Your task to perform on an android device: turn notification dots off Image 0: 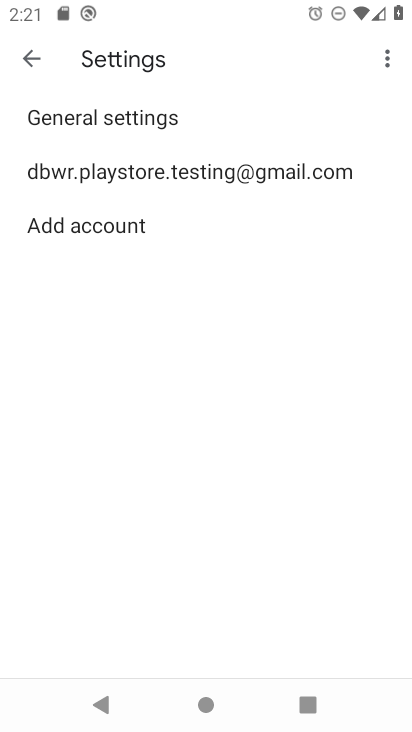
Step 0: press home button
Your task to perform on an android device: turn notification dots off Image 1: 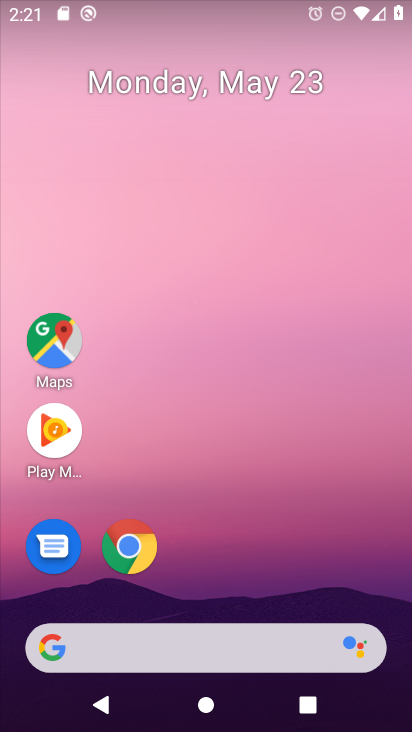
Step 1: drag from (234, 554) to (253, 0)
Your task to perform on an android device: turn notification dots off Image 2: 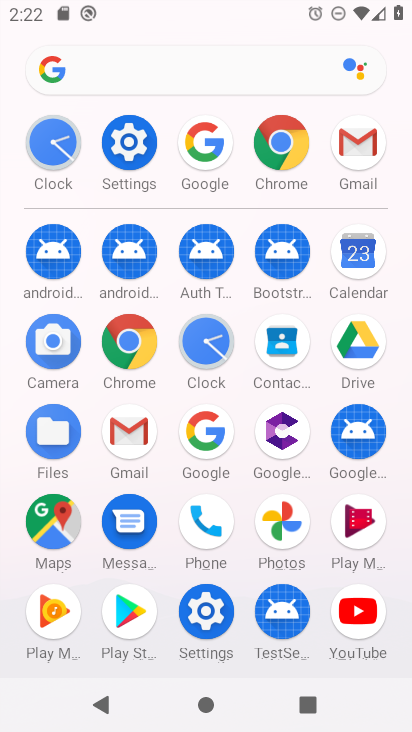
Step 2: click (129, 142)
Your task to perform on an android device: turn notification dots off Image 3: 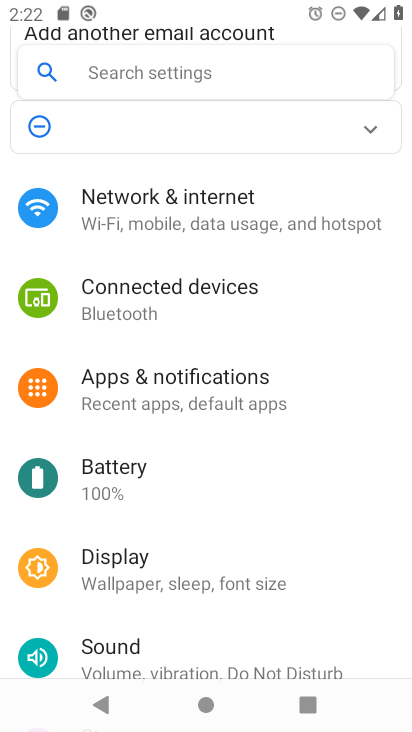
Step 3: click (222, 382)
Your task to perform on an android device: turn notification dots off Image 4: 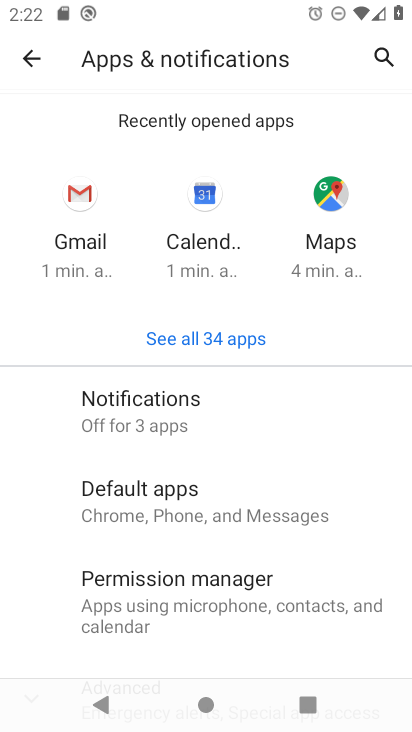
Step 4: click (212, 428)
Your task to perform on an android device: turn notification dots off Image 5: 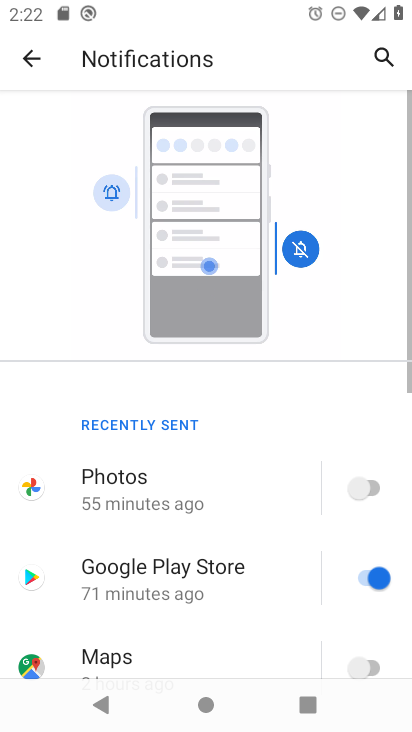
Step 5: drag from (166, 636) to (251, 120)
Your task to perform on an android device: turn notification dots off Image 6: 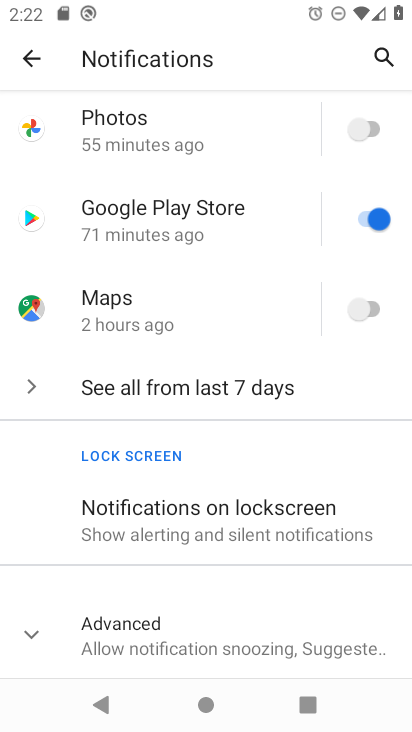
Step 6: click (98, 647)
Your task to perform on an android device: turn notification dots off Image 7: 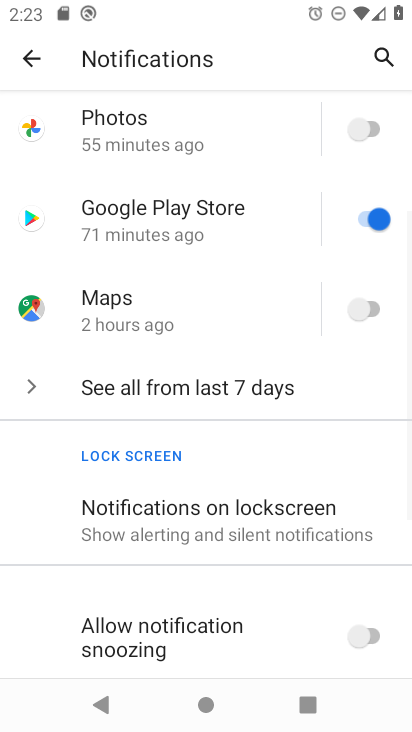
Step 7: task complete